Your task to perform on an android device: Open the web browser Image 0: 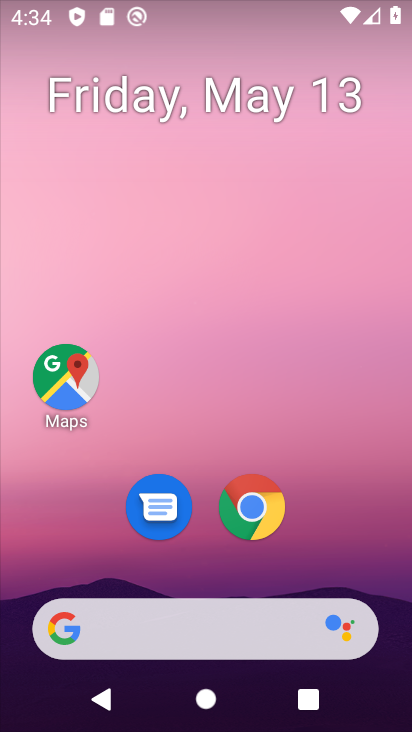
Step 0: click (267, 507)
Your task to perform on an android device: Open the web browser Image 1: 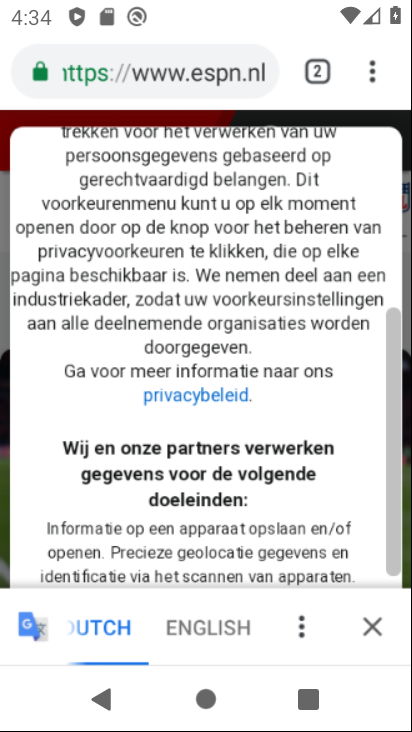
Step 1: task complete